Your task to perform on an android device: See recent photos Image 0: 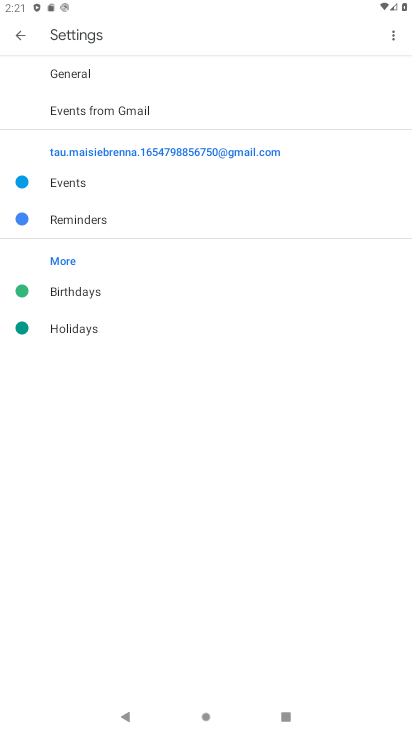
Step 0: press home button
Your task to perform on an android device: See recent photos Image 1: 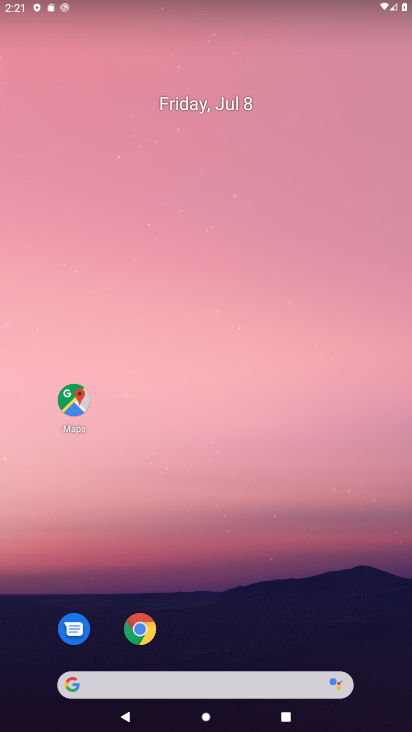
Step 1: drag from (22, 705) to (266, 709)
Your task to perform on an android device: See recent photos Image 2: 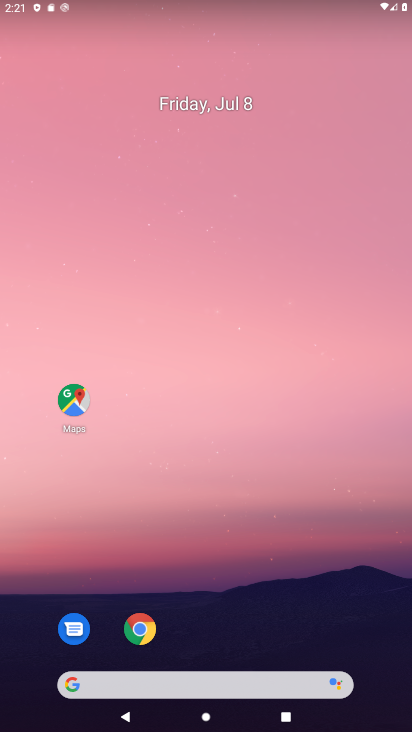
Step 2: drag from (322, 41) to (406, 565)
Your task to perform on an android device: See recent photos Image 3: 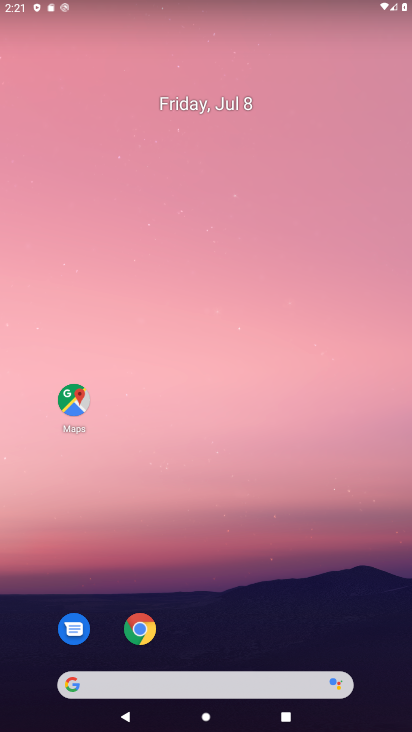
Step 3: drag from (57, 689) to (250, 23)
Your task to perform on an android device: See recent photos Image 4: 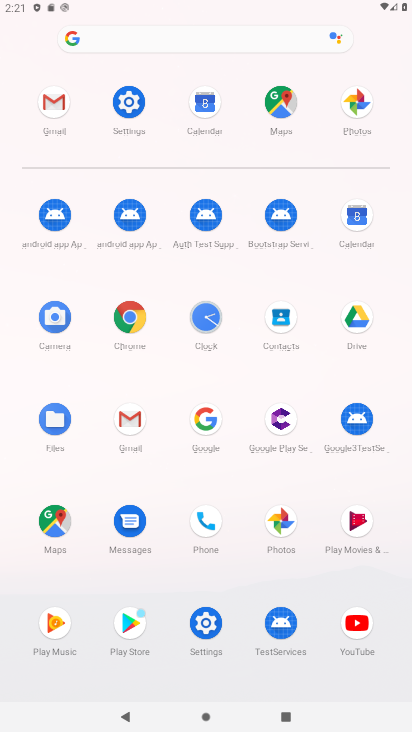
Step 4: click (284, 525)
Your task to perform on an android device: See recent photos Image 5: 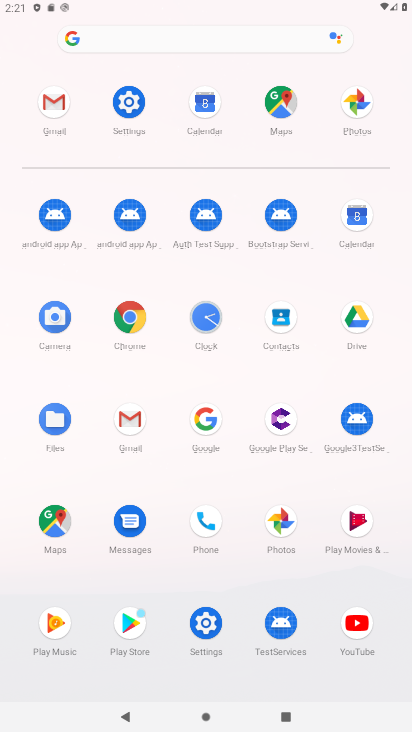
Step 5: click (284, 523)
Your task to perform on an android device: See recent photos Image 6: 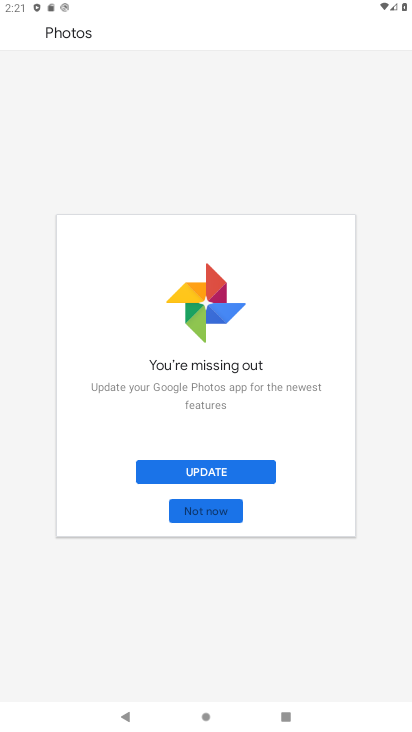
Step 6: click (206, 527)
Your task to perform on an android device: See recent photos Image 7: 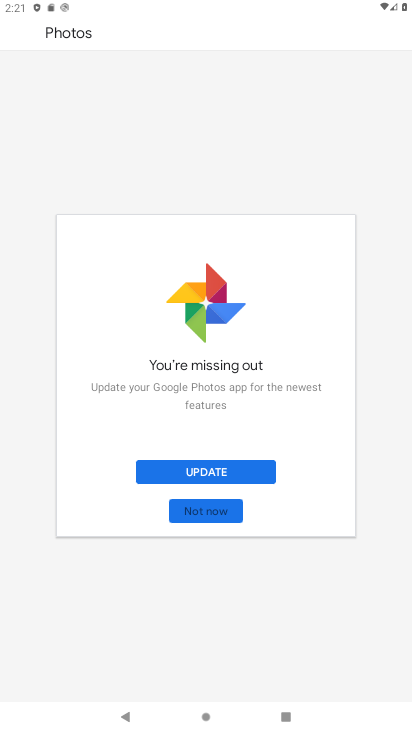
Step 7: click (206, 509)
Your task to perform on an android device: See recent photos Image 8: 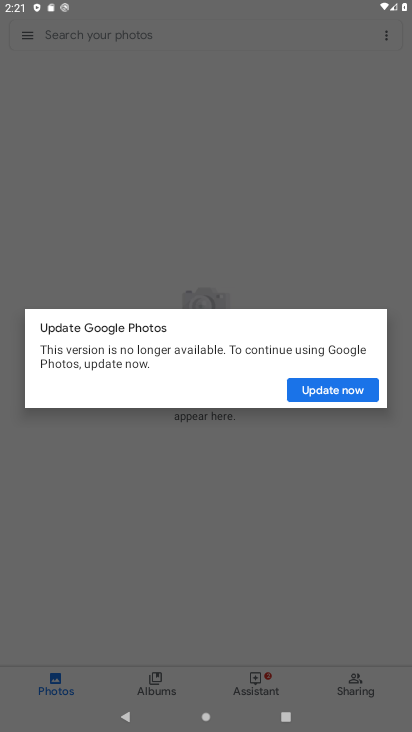
Step 8: click (321, 381)
Your task to perform on an android device: See recent photos Image 9: 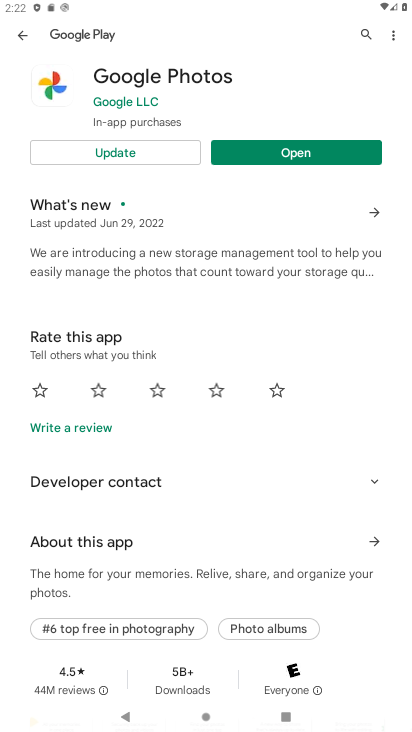
Step 9: click (248, 148)
Your task to perform on an android device: See recent photos Image 10: 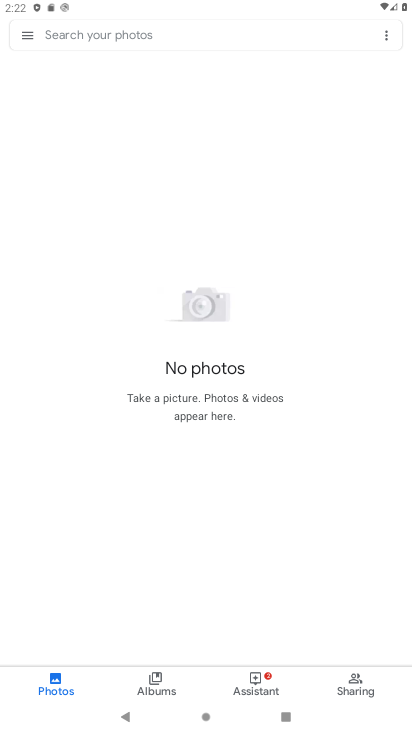
Step 10: task complete